Your task to perform on an android device: turn off picture-in-picture Image 0: 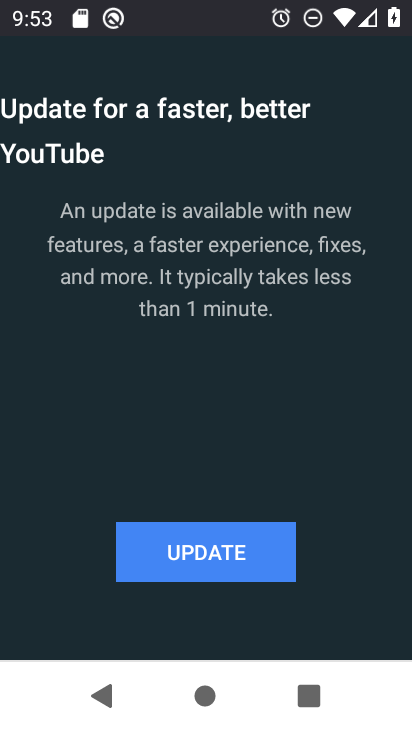
Step 0: press home button
Your task to perform on an android device: turn off picture-in-picture Image 1: 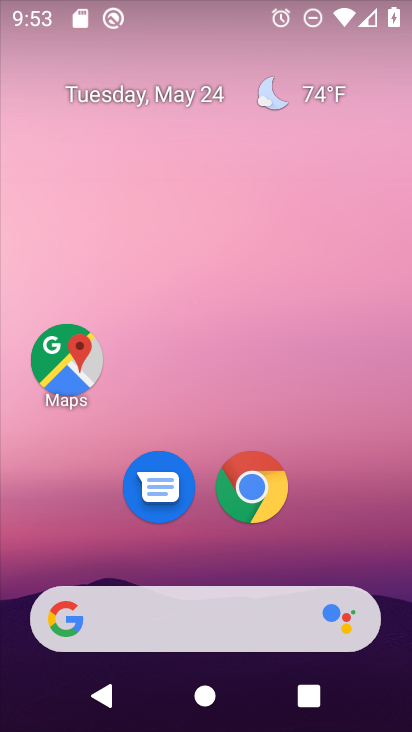
Step 1: click (260, 496)
Your task to perform on an android device: turn off picture-in-picture Image 2: 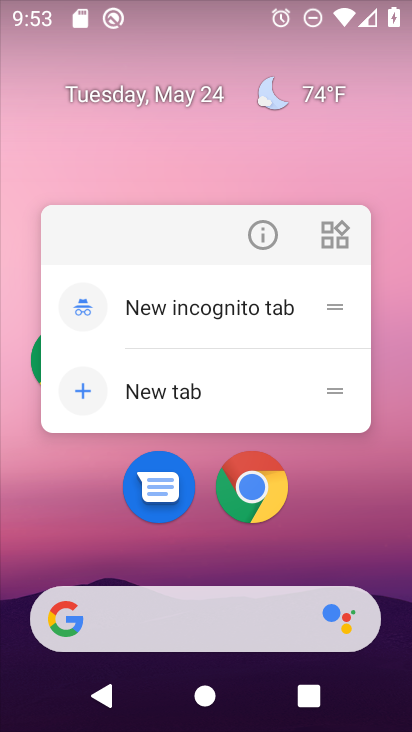
Step 2: click (266, 226)
Your task to perform on an android device: turn off picture-in-picture Image 3: 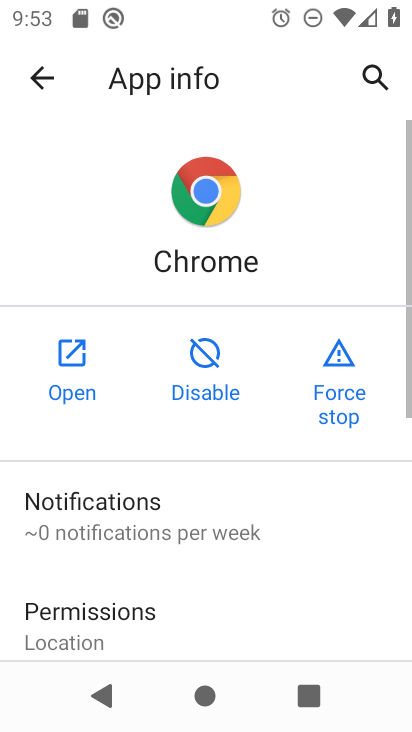
Step 3: drag from (268, 588) to (249, 132)
Your task to perform on an android device: turn off picture-in-picture Image 4: 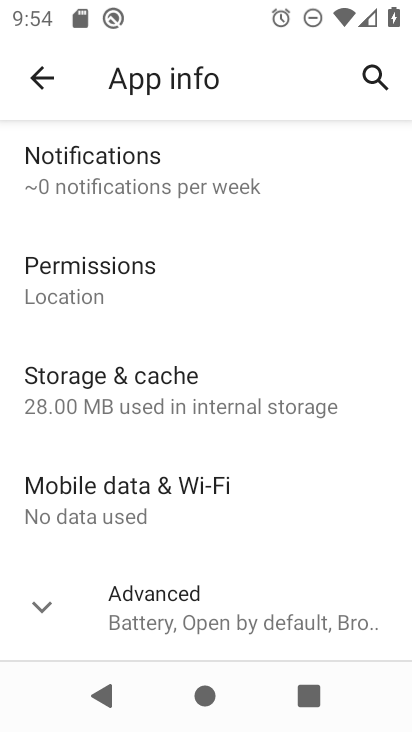
Step 4: click (43, 614)
Your task to perform on an android device: turn off picture-in-picture Image 5: 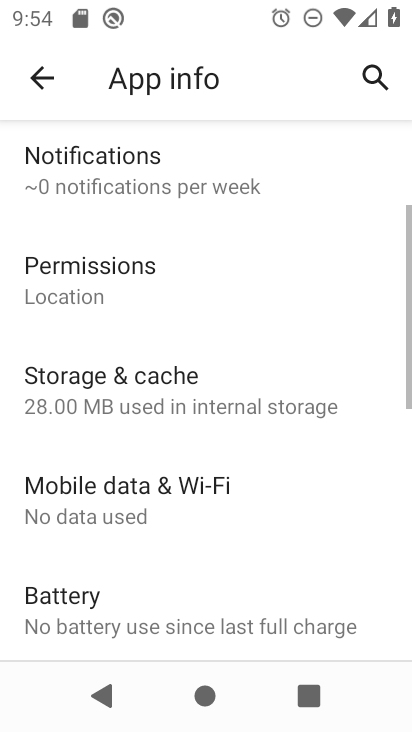
Step 5: drag from (188, 590) to (196, 91)
Your task to perform on an android device: turn off picture-in-picture Image 6: 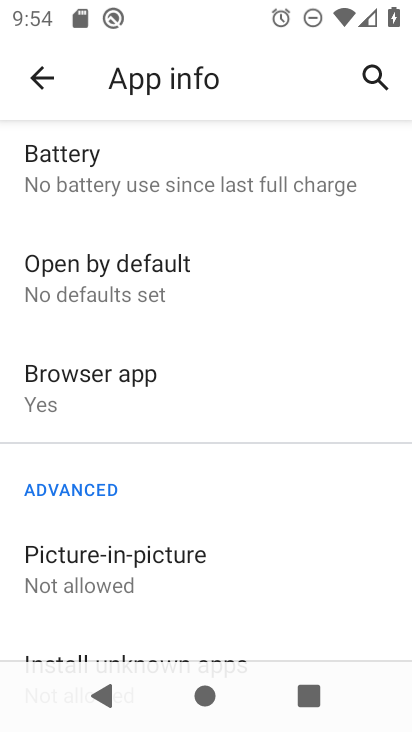
Step 6: drag from (188, 538) to (213, 221)
Your task to perform on an android device: turn off picture-in-picture Image 7: 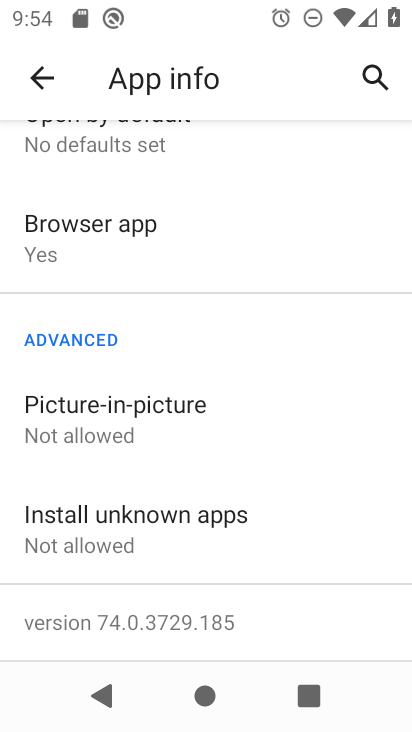
Step 7: click (86, 409)
Your task to perform on an android device: turn off picture-in-picture Image 8: 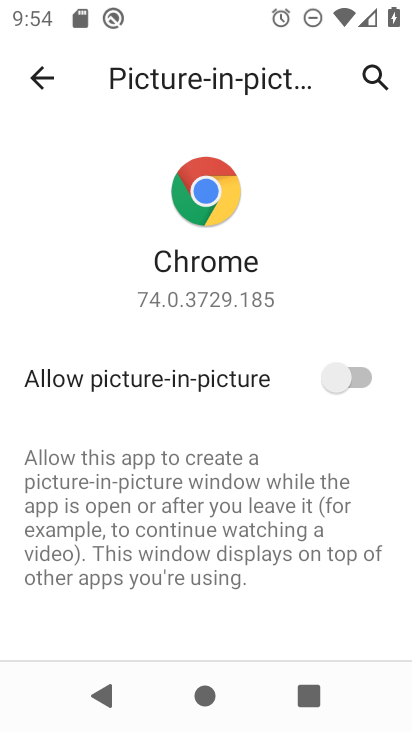
Step 8: task complete